Your task to perform on an android device: Play the last video I watched on Youtube Image 0: 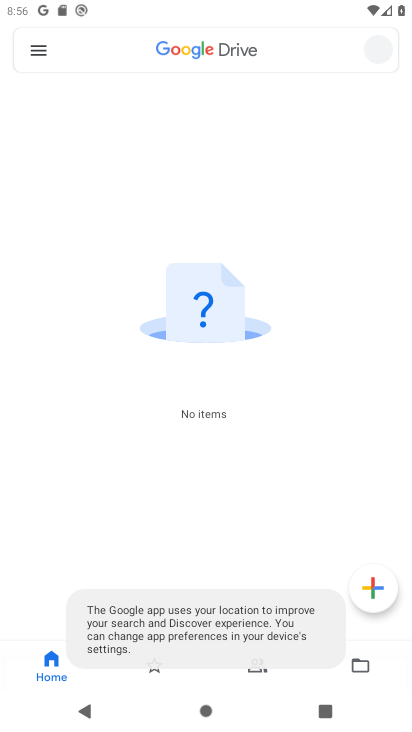
Step 0: drag from (167, 244) to (212, 583)
Your task to perform on an android device: Play the last video I watched on Youtube Image 1: 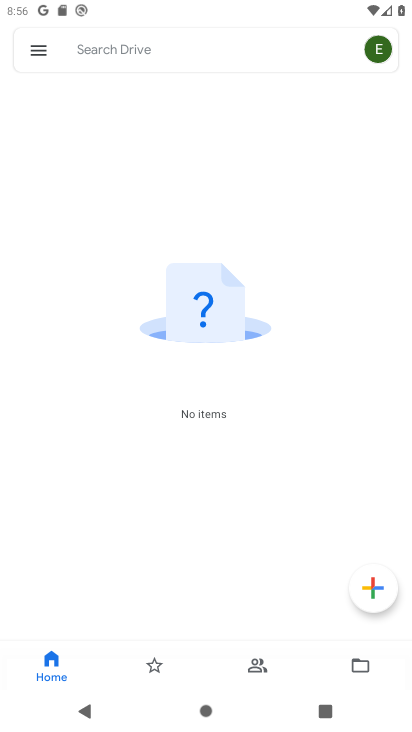
Step 1: press home button
Your task to perform on an android device: Play the last video I watched on Youtube Image 2: 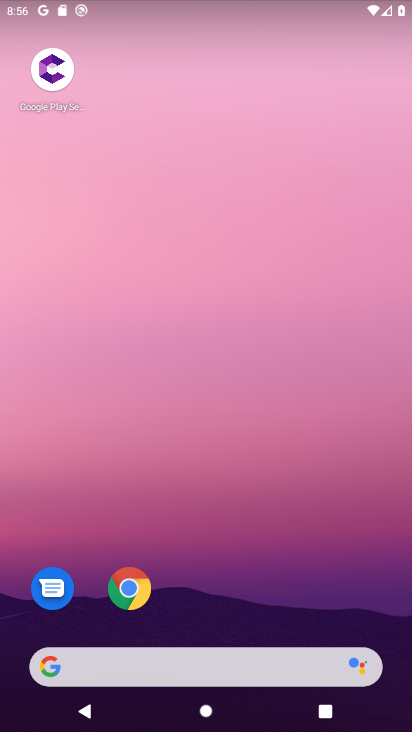
Step 2: drag from (201, 656) to (175, 159)
Your task to perform on an android device: Play the last video I watched on Youtube Image 3: 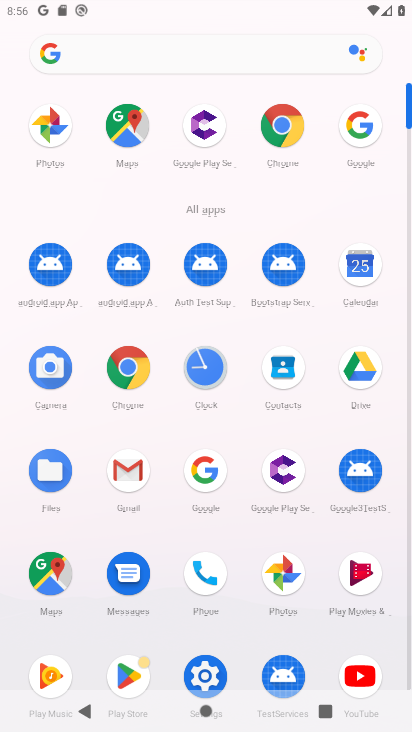
Step 3: click (360, 662)
Your task to perform on an android device: Play the last video I watched on Youtube Image 4: 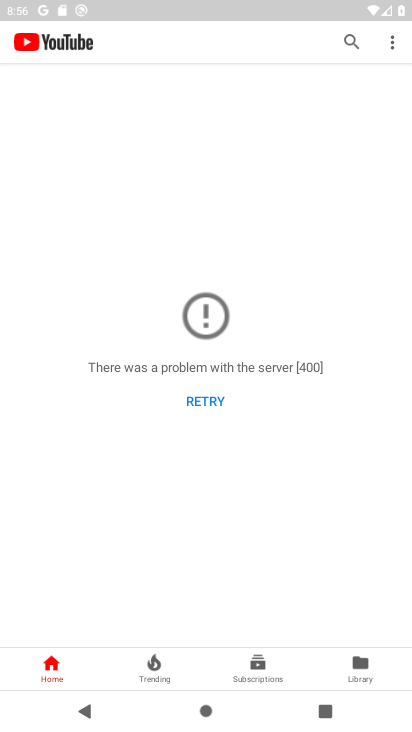
Step 4: click (354, 658)
Your task to perform on an android device: Play the last video I watched on Youtube Image 5: 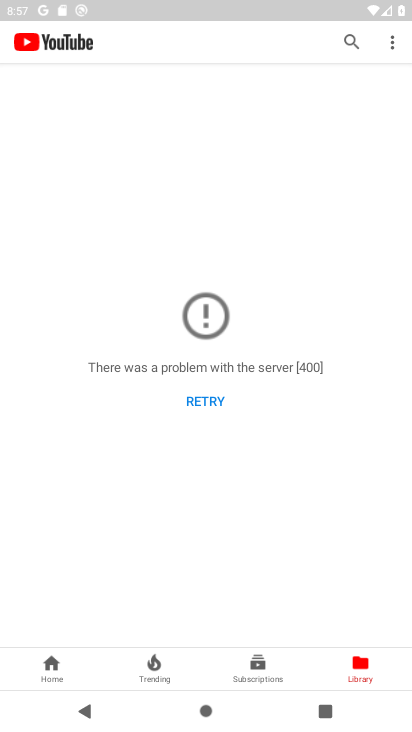
Step 5: task complete